Your task to perform on an android device: check out phone information Image 0: 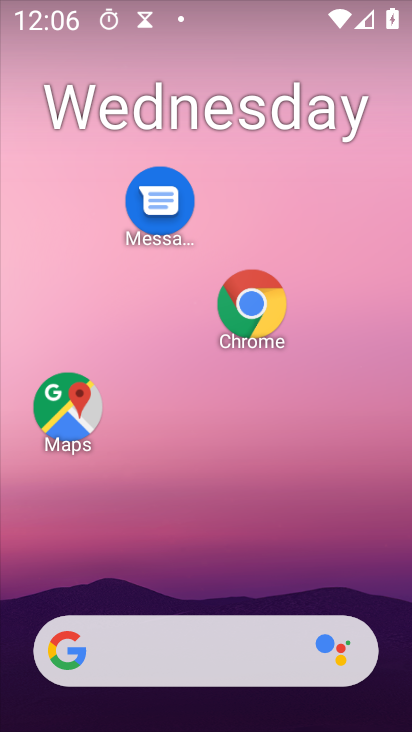
Step 0: drag from (144, 659) to (154, 335)
Your task to perform on an android device: check out phone information Image 1: 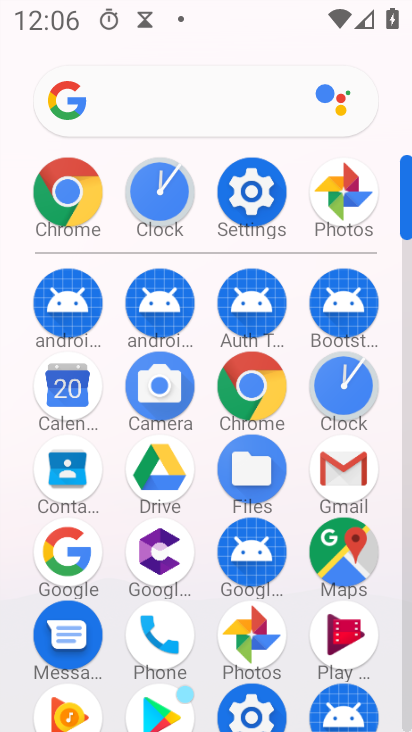
Step 1: click (257, 185)
Your task to perform on an android device: check out phone information Image 2: 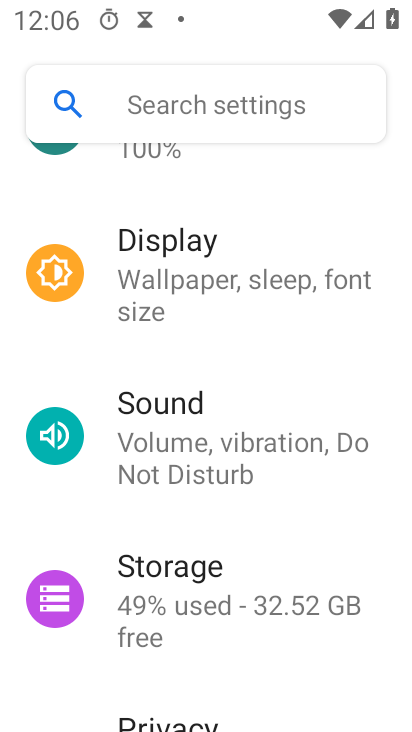
Step 2: drag from (315, 621) to (300, 139)
Your task to perform on an android device: check out phone information Image 3: 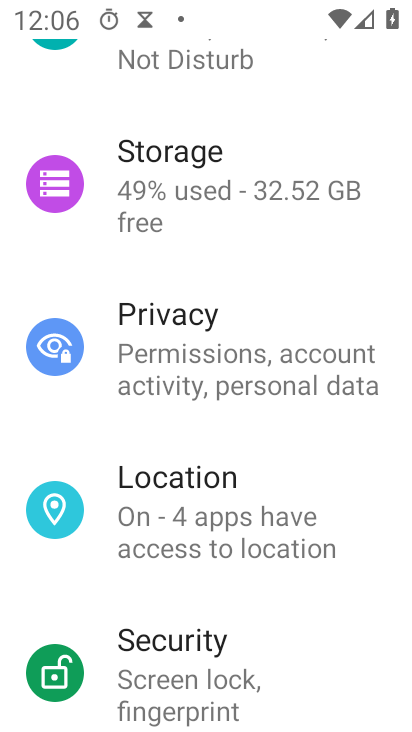
Step 3: drag from (254, 608) to (327, 123)
Your task to perform on an android device: check out phone information Image 4: 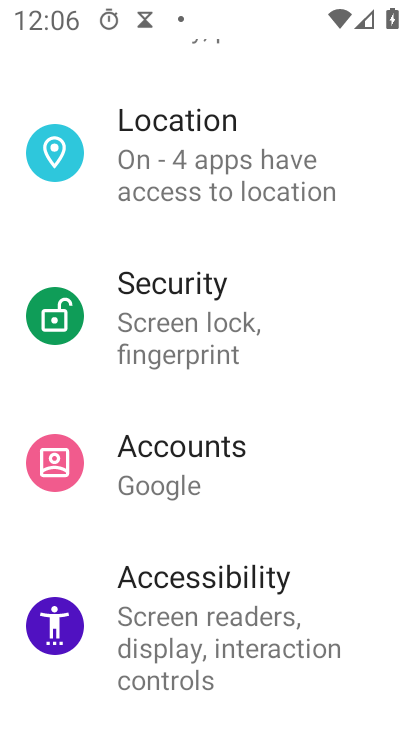
Step 4: drag from (252, 563) to (260, 126)
Your task to perform on an android device: check out phone information Image 5: 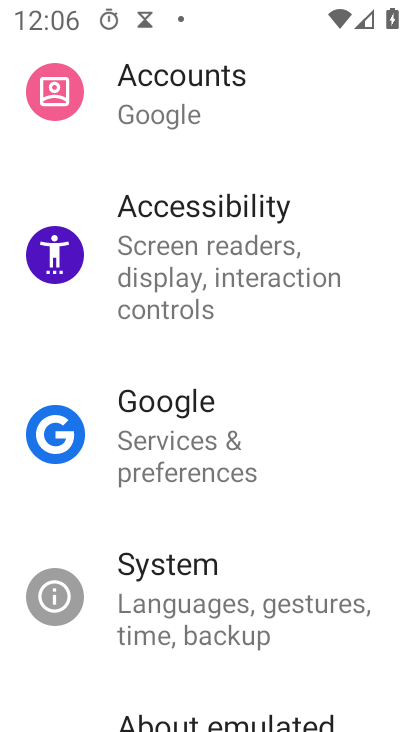
Step 5: drag from (233, 621) to (237, 193)
Your task to perform on an android device: check out phone information Image 6: 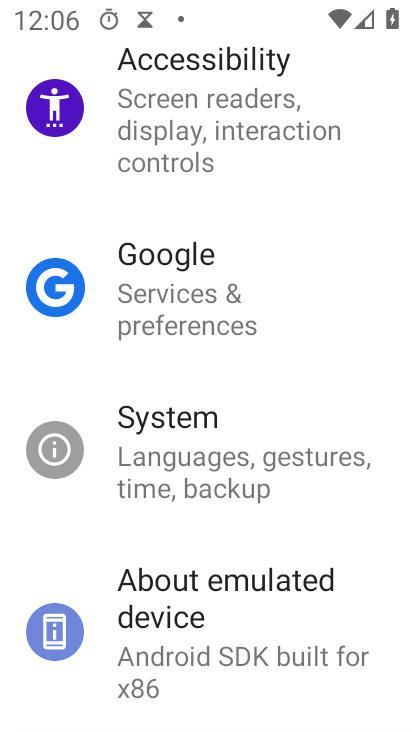
Step 6: click (147, 621)
Your task to perform on an android device: check out phone information Image 7: 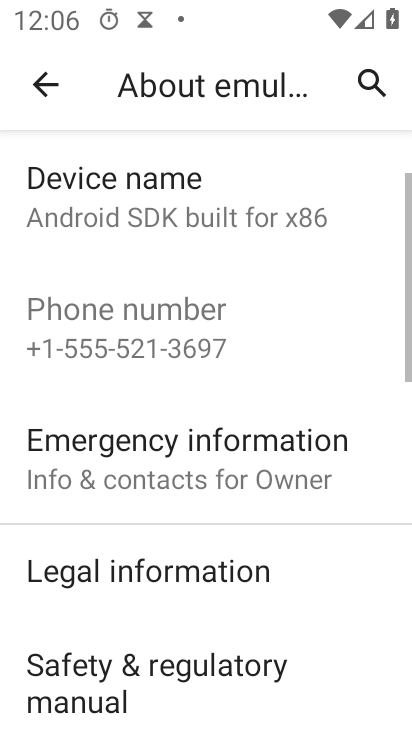
Step 7: task complete